Your task to perform on an android device: Open Maps and search for coffee Image 0: 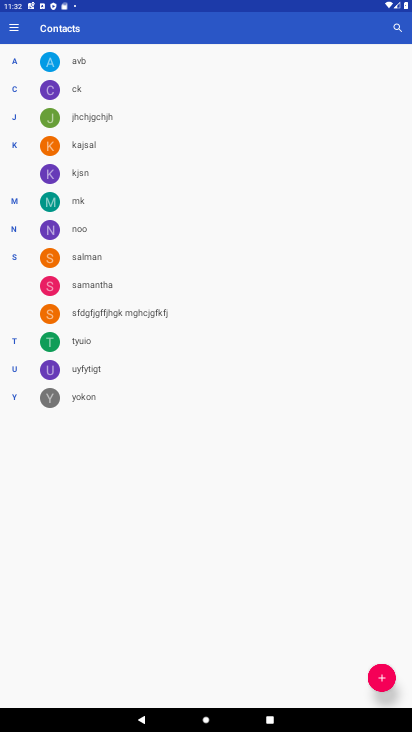
Step 0: press home button
Your task to perform on an android device: Open Maps and search for coffee Image 1: 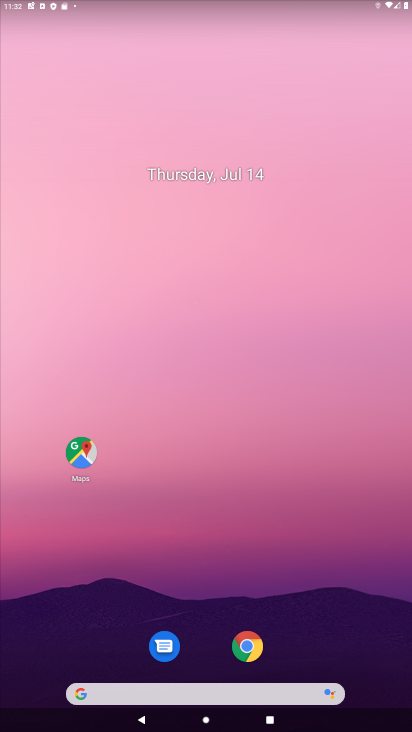
Step 1: click (68, 456)
Your task to perform on an android device: Open Maps and search for coffee Image 2: 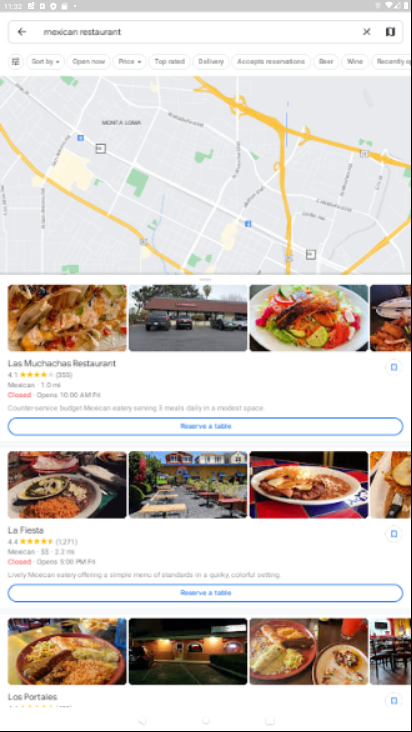
Step 2: click (363, 33)
Your task to perform on an android device: Open Maps and search for coffee Image 3: 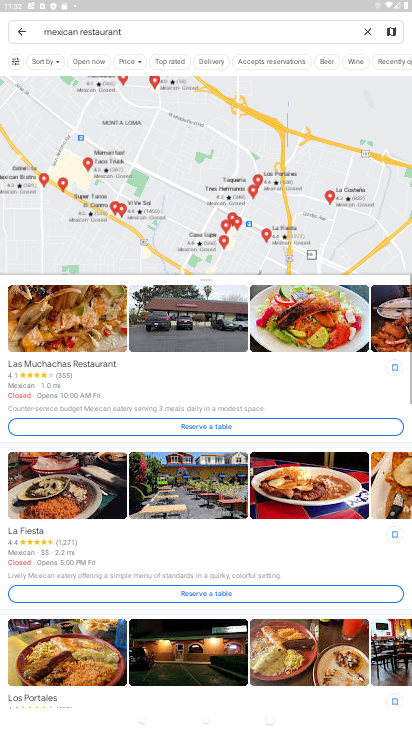
Step 3: click (160, 29)
Your task to perform on an android device: Open Maps and search for coffee Image 4: 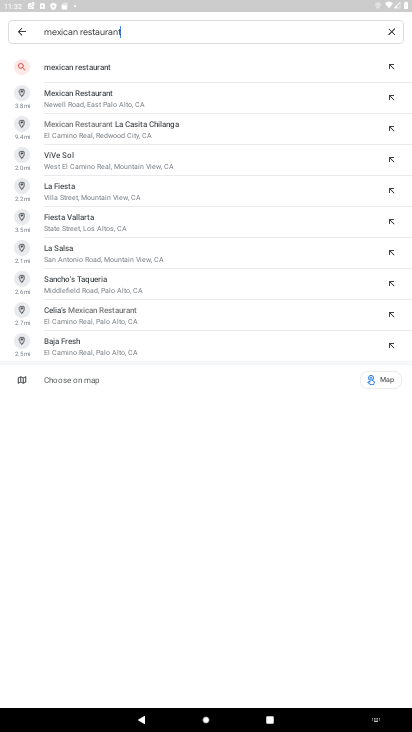
Step 4: click (388, 29)
Your task to perform on an android device: Open Maps and search for coffee Image 5: 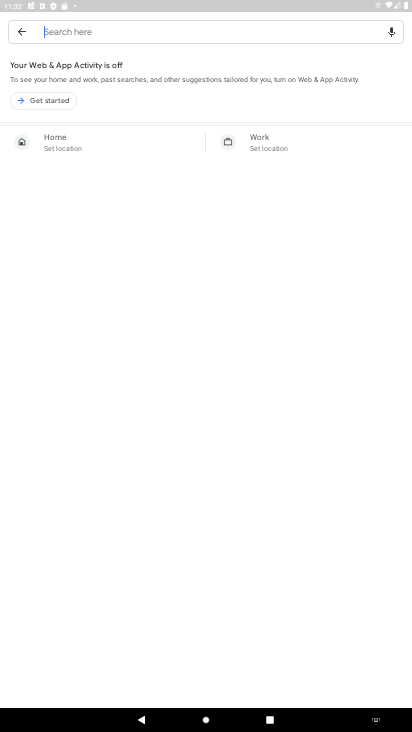
Step 5: click (148, 32)
Your task to perform on an android device: Open Maps and search for coffee Image 6: 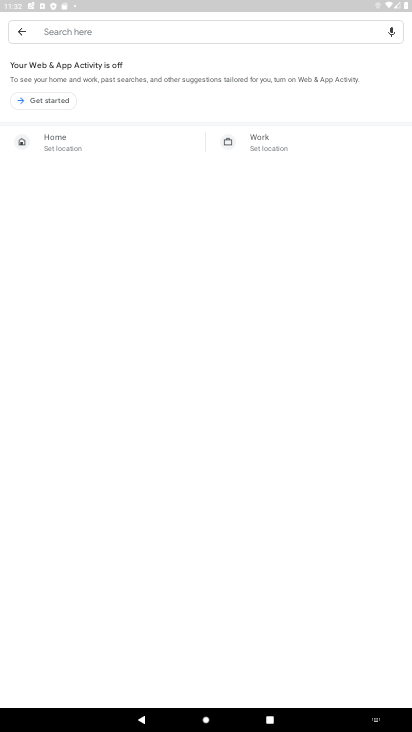
Step 6: type "coffee"
Your task to perform on an android device: Open Maps and search for coffee Image 7: 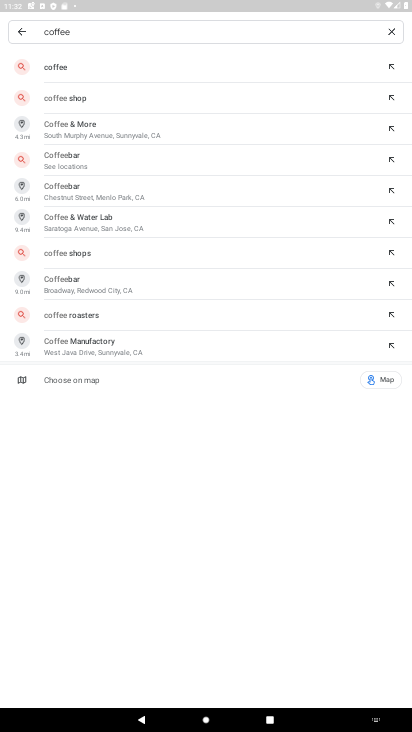
Step 7: click (94, 68)
Your task to perform on an android device: Open Maps and search for coffee Image 8: 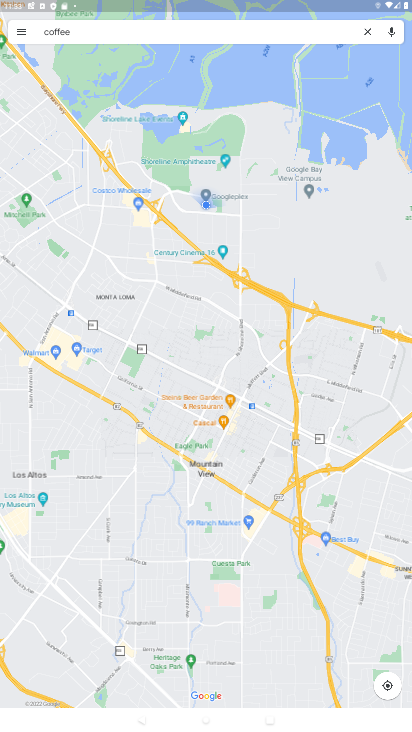
Step 8: task complete